Your task to perform on an android device: Empty the shopping cart on ebay. Image 0: 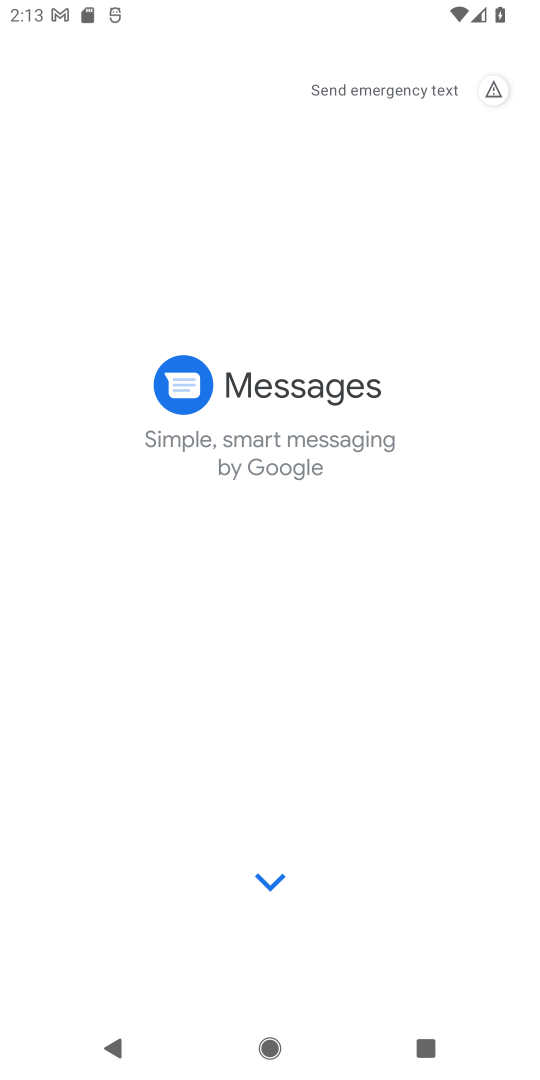
Step 0: press home button
Your task to perform on an android device: Empty the shopping cart on ebay. Image 1: 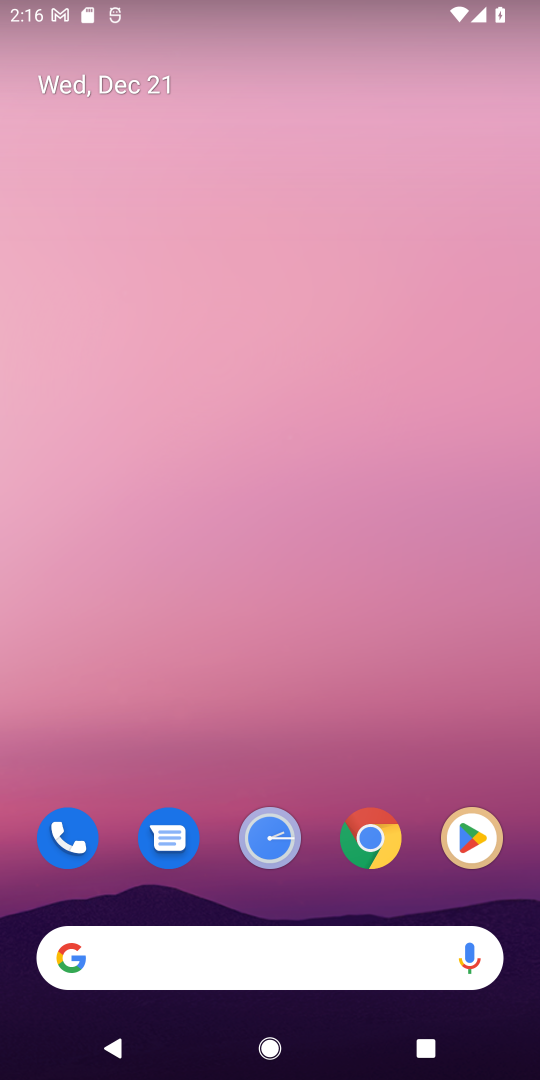
Step 1: click (393, 832)
Your task to perform on an android device: Empty the shopping cart on ebay. Image 2: 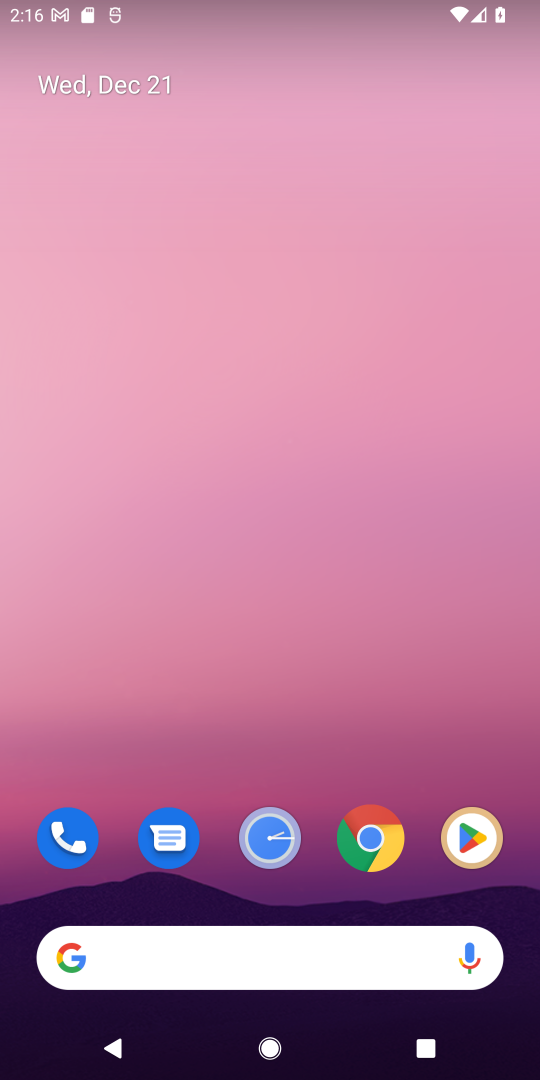
Step 2: task complete